Your task to perform on an android device: open app "PUBG MOBILE" (install if not already installed), go to login, and select forgot password Image 0: 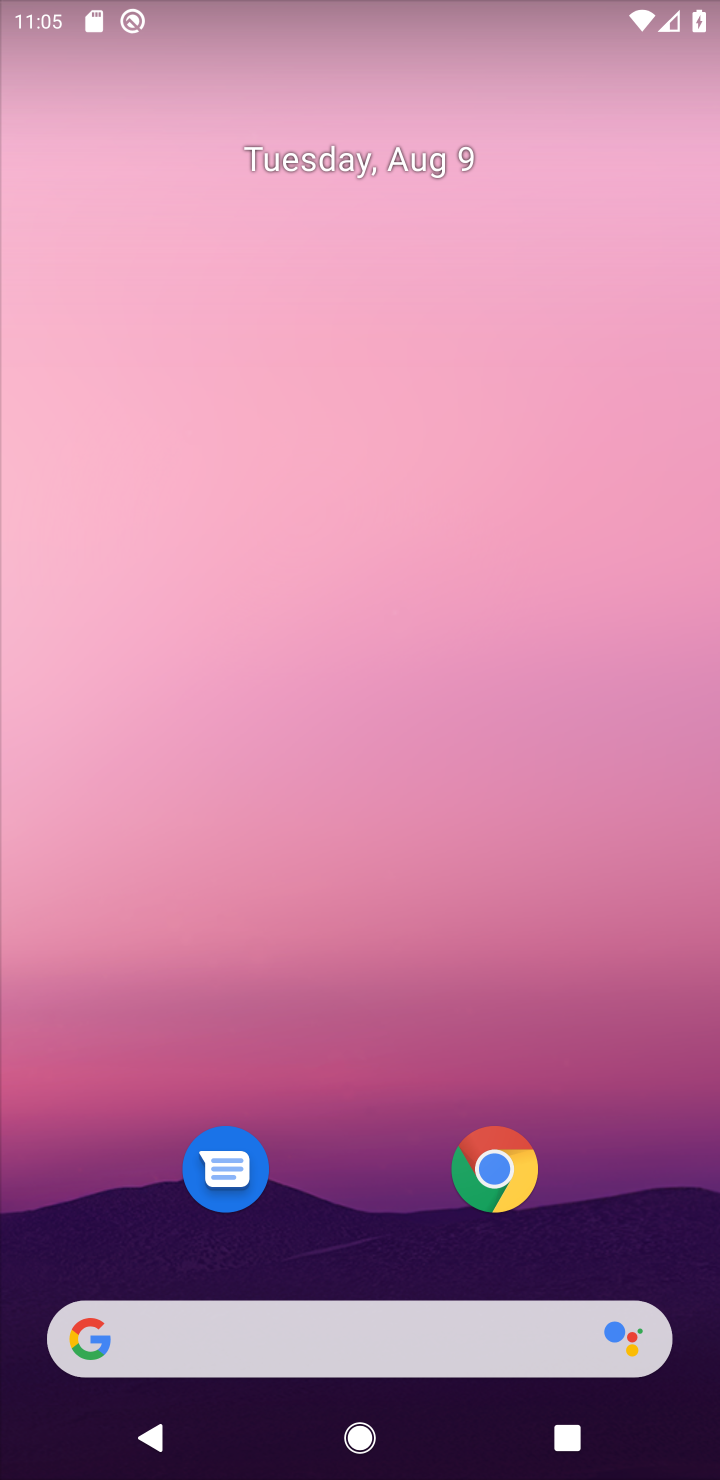
Step 0: press home button
Your task to perform on an android device: open app "PUBG MOBILE" (install if not already installed), go to login, and select forgot password Image 1: 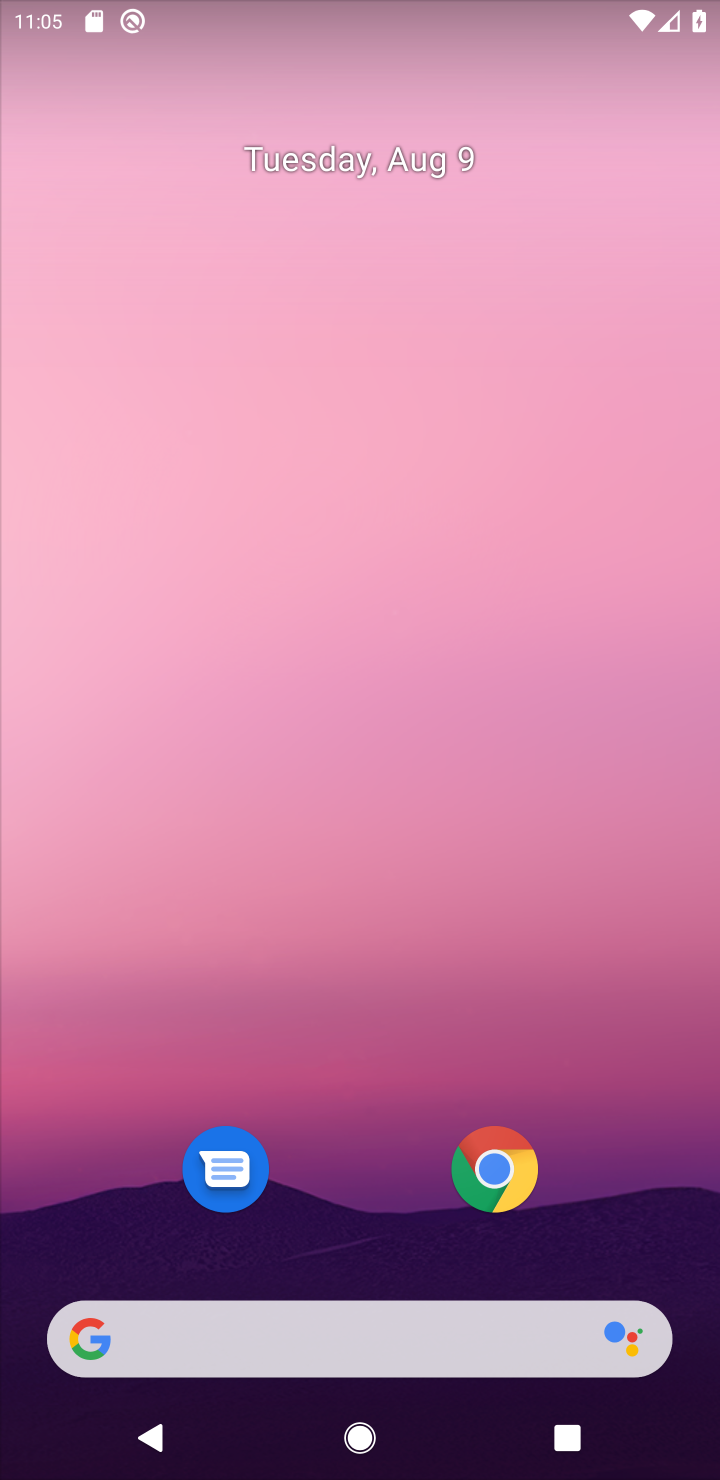
Step 1: drag from (633, 1237) to (651, 152)
Your task to perform on an android device: open app "PUBG MOBILE" (install if not already installed), go to login, and select forgot password Image 2: 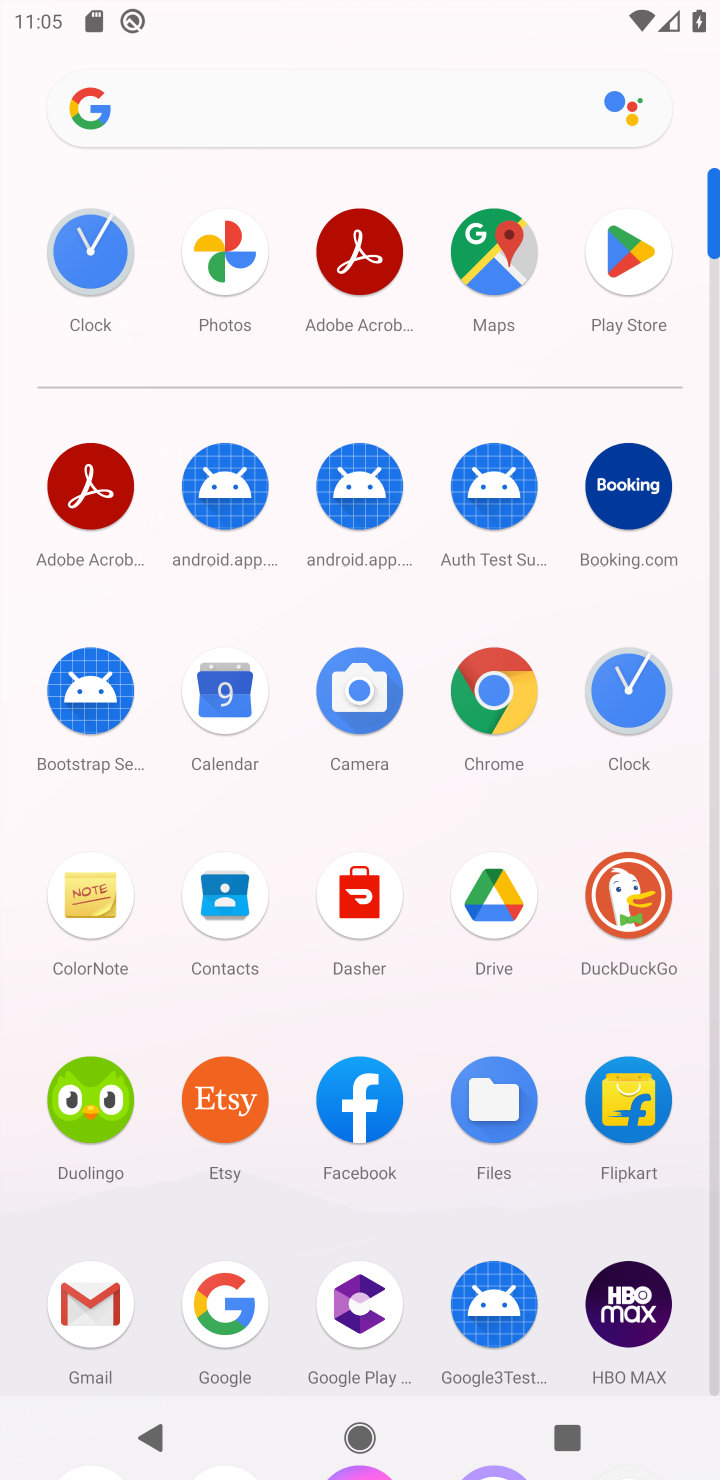
Step 2: click (619, 222)
Your task to perform on an android device: open app "PUBG MOBILE" (install if not already installed), go to login, and select forgot password Image 3: 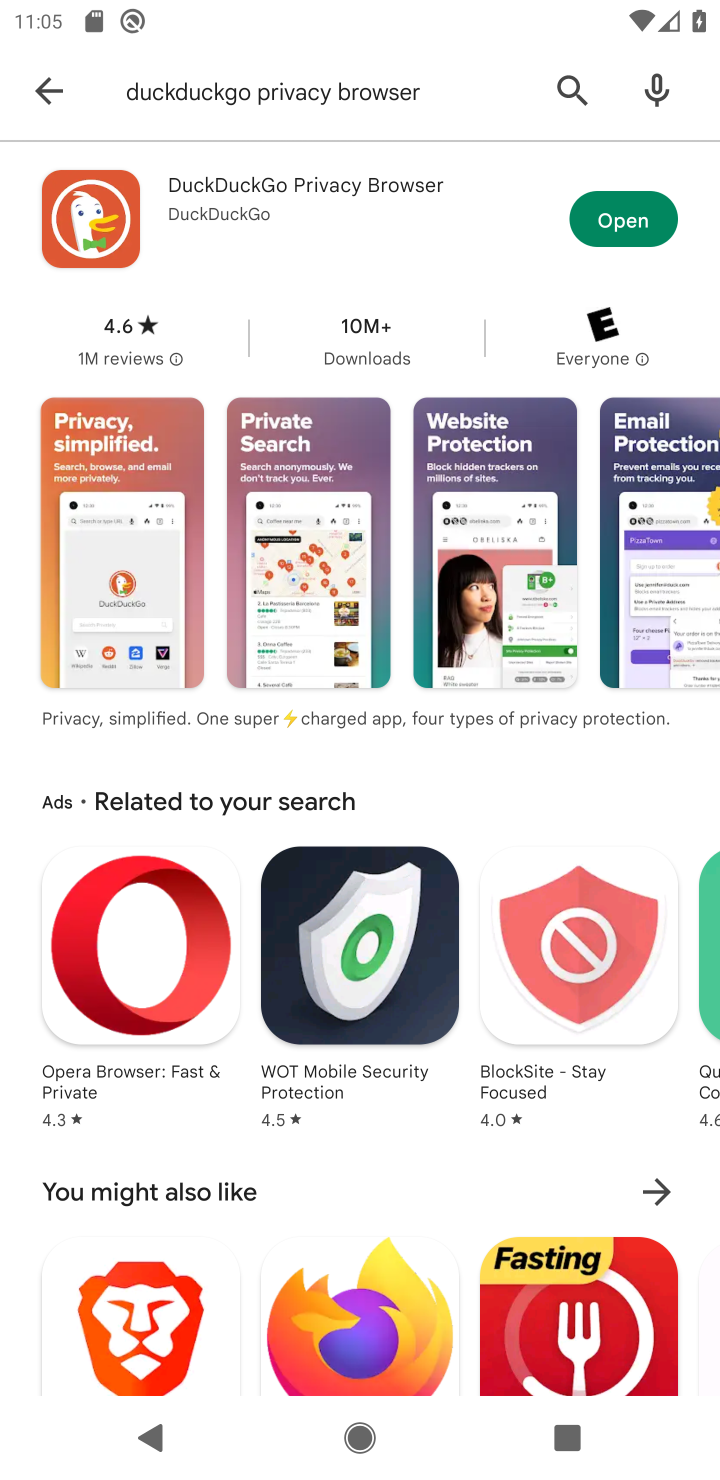
Step 3: click (568, 90)
Your task to perform on an android device: open app "PUBG MOBILE" (install if not already installed), go to login, and select forgot password Image 4: 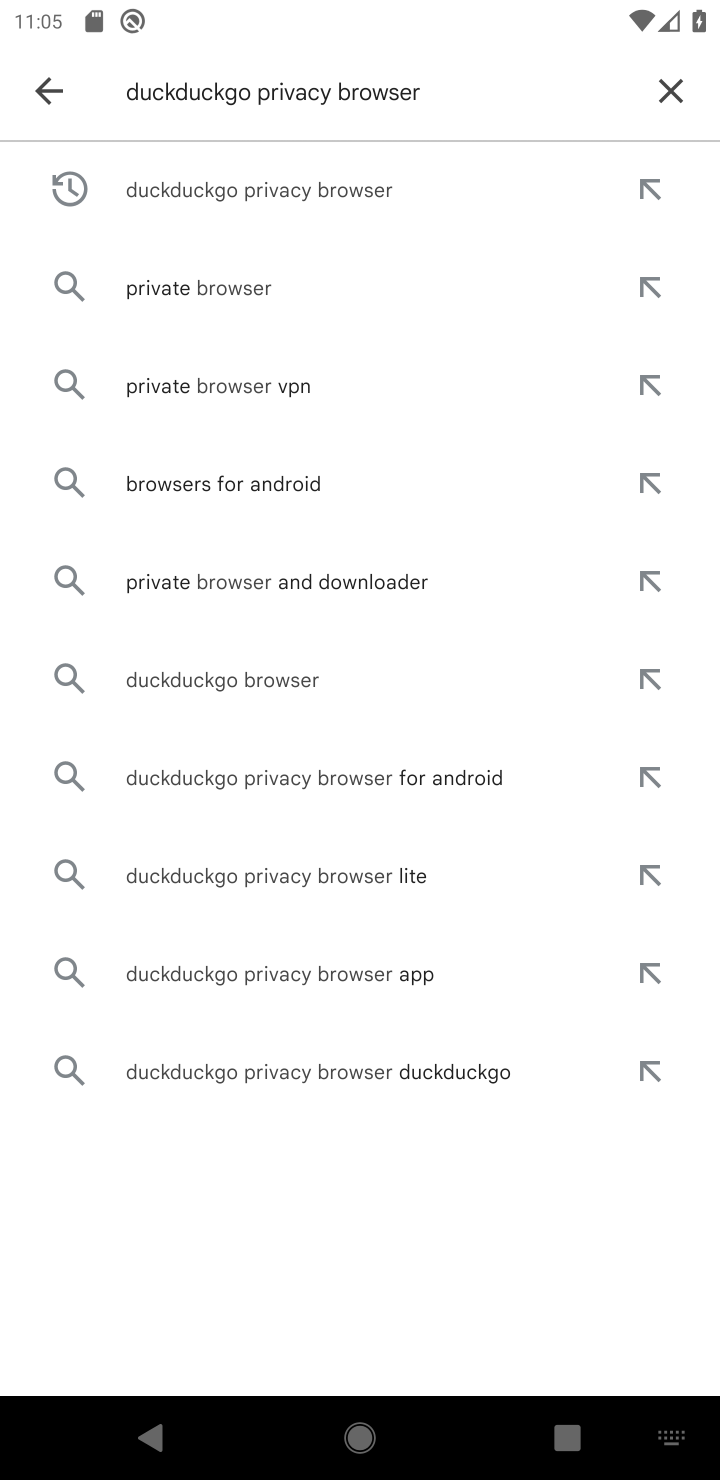
Step 4: click (661, 96)
Your task to perform on an android device: open app "PUBG MOBILE" (install if not already installed), go to login, and select forgot password Image 5: 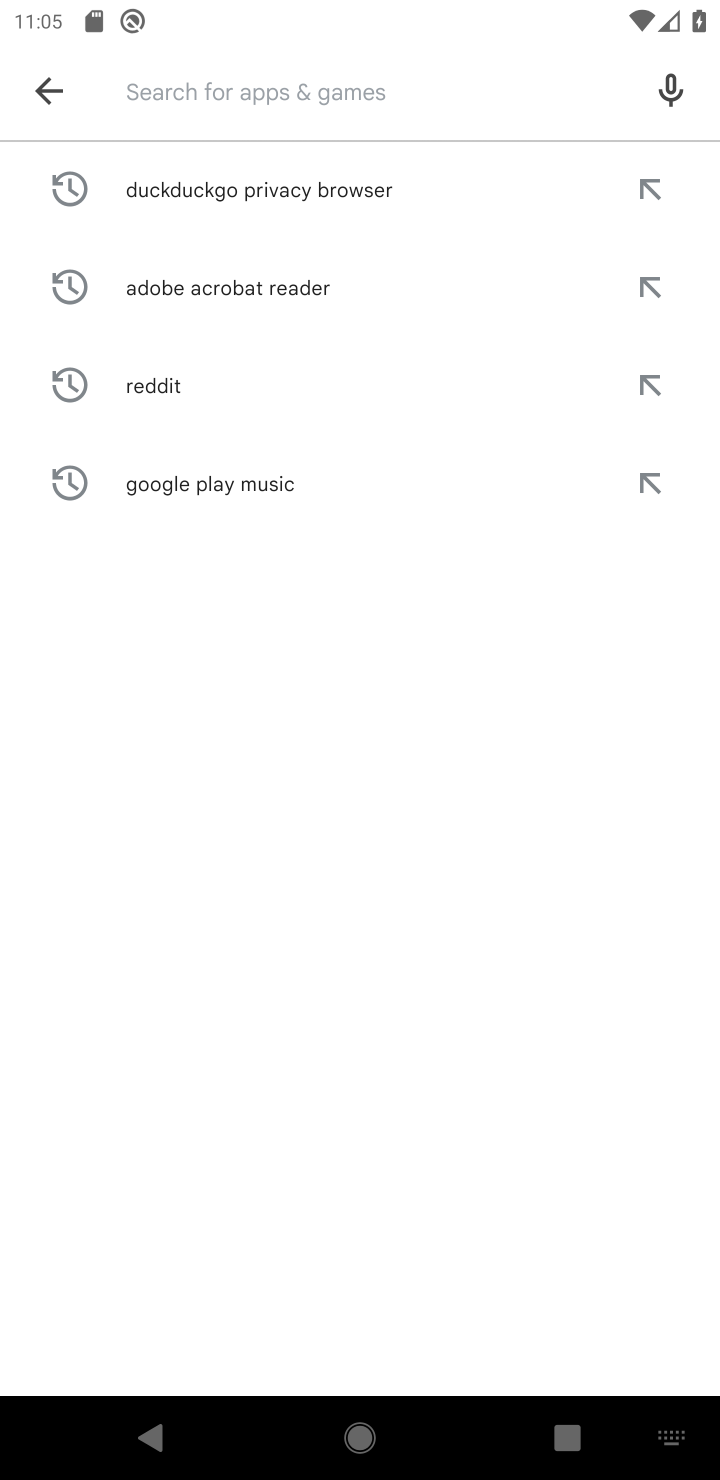
Step 5: type "pubg mobile"
Your task to perform on an android device: open app "PUBG MOBILE" (install if not already installed), go to login, and select forgot password Image 6: 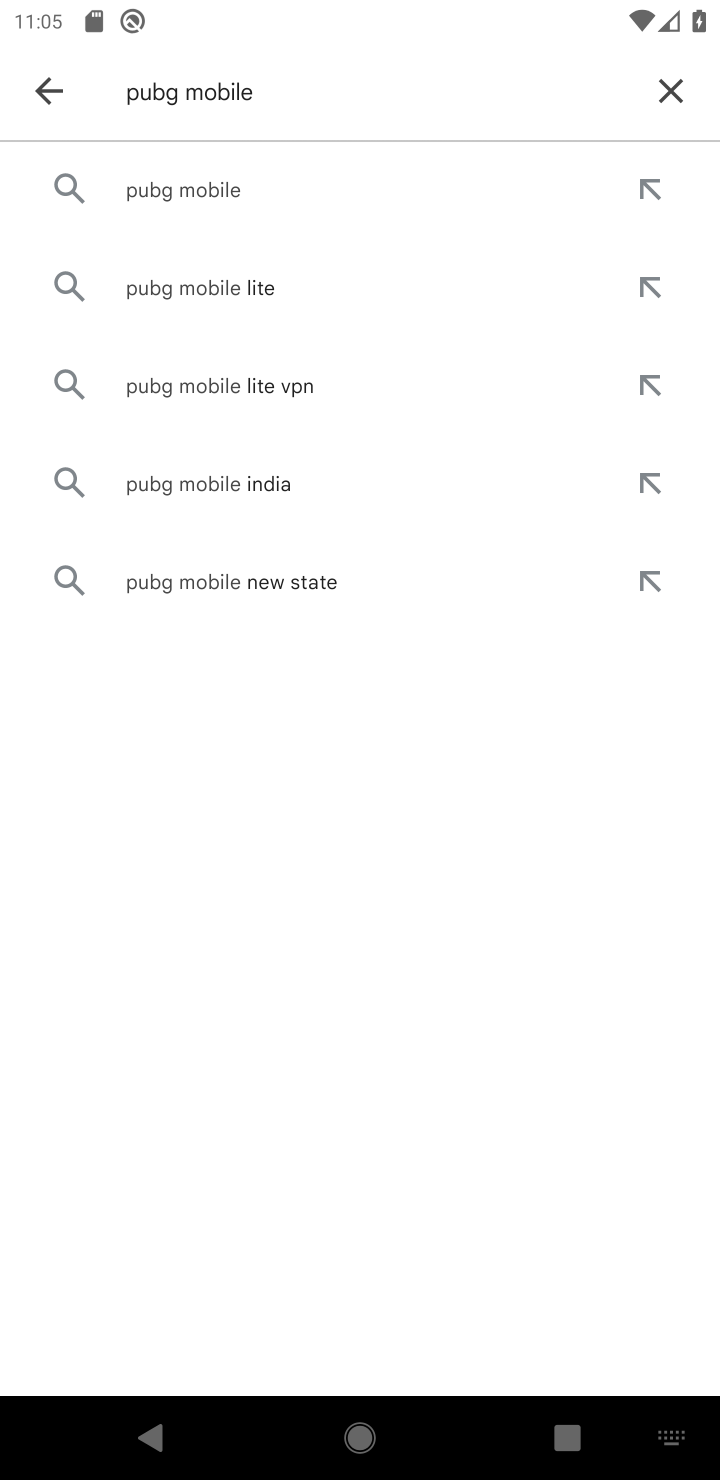
Step 6: click (240, 194)
Your task to perform on an android device: open app "PUBG MOBILE" (install if not already installed), go to login, and select forgot password Image 7: 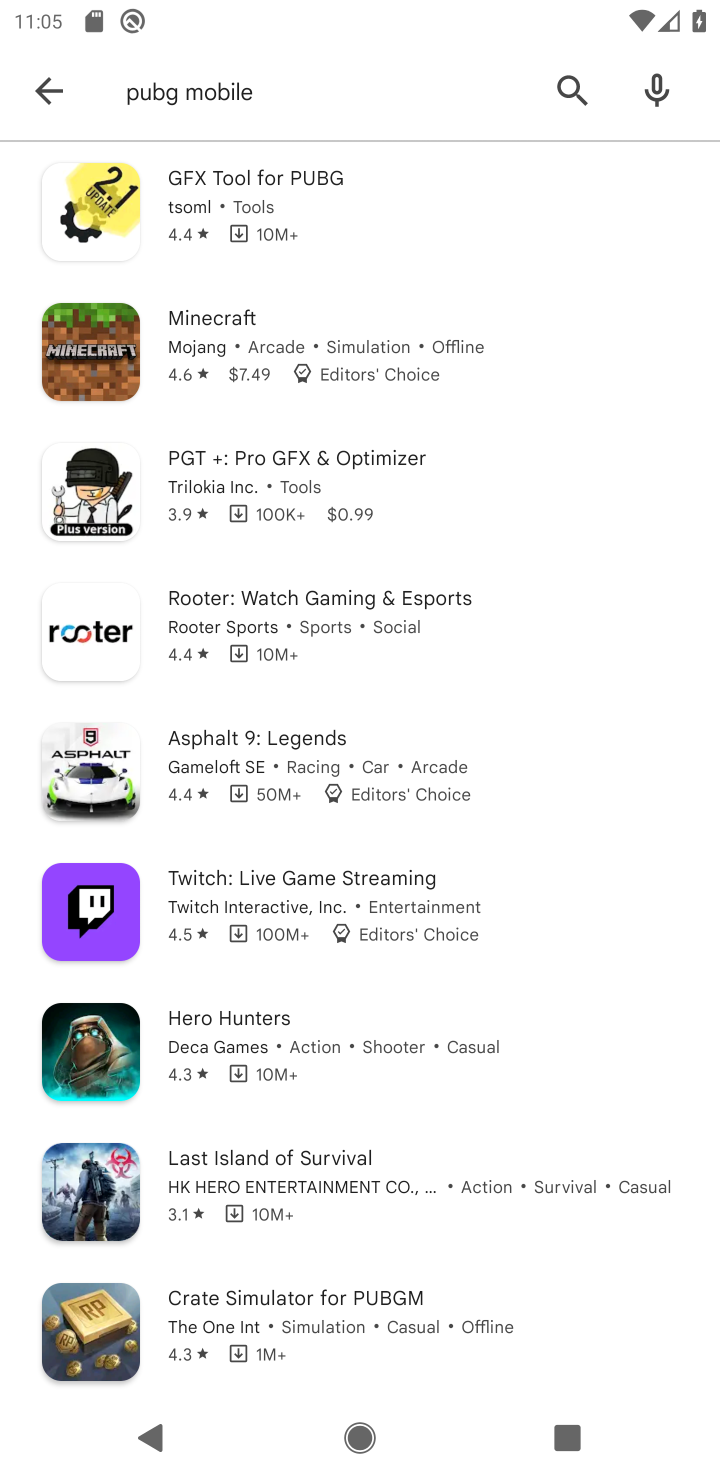
Step 7: task complete